Your task to perform on an android device: Go to display settings Image 0: 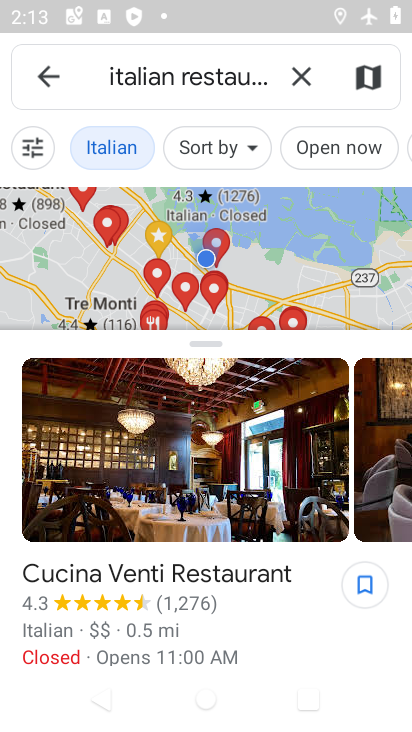
Step 0: press home button
Your task to perform on an android device: Go to display settings Image 1: 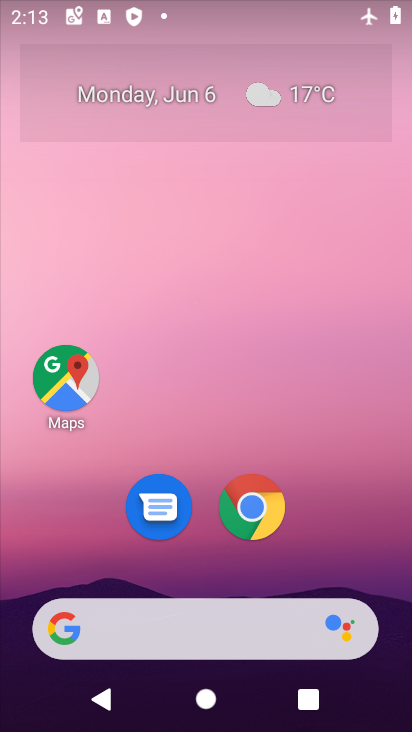
Step 1: drag from (334, 529) to (275, 8)
Your task to perform on an android device: Go to display settings Image 2: 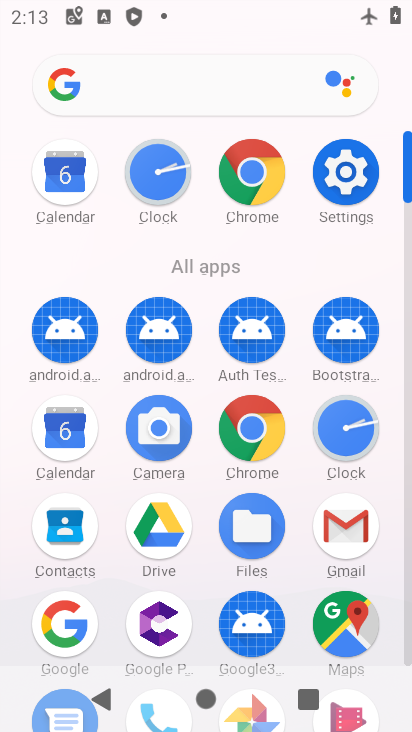
Step 2: click (341, 153)
Your task to perform on an android device: Go to display settings Image 3: 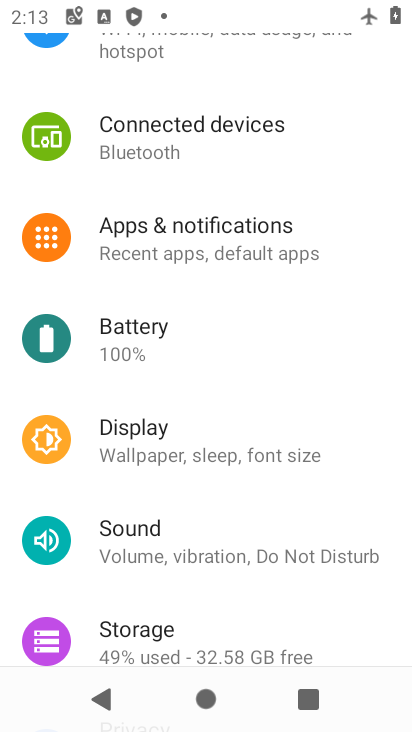
Step 3: drag from (252, 508) to (271, 159)
Your task to perform on an android device: Go to display settings Image 4: 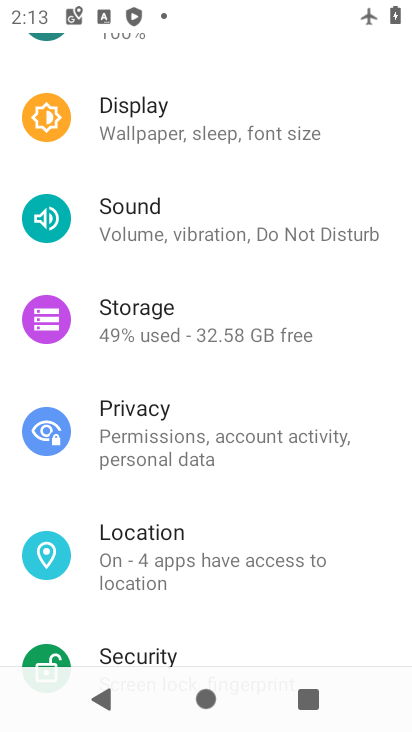
Step 4: click (213, 110)
Your task to perform on an android device: Go to display settings Image 5: 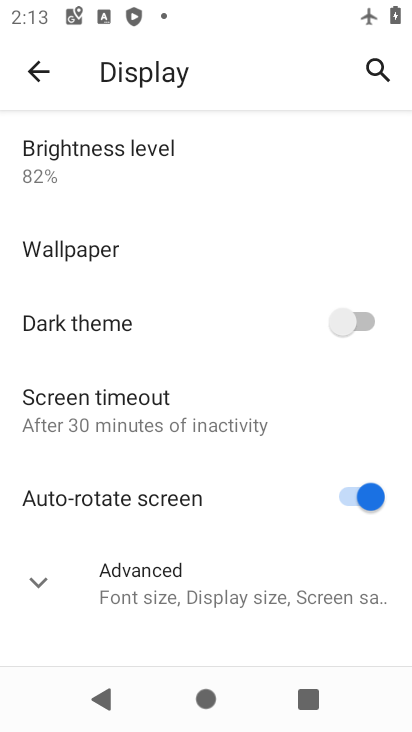
Step 5: task complete